Your task to perform on an android device: Go to sound settings Image 0: 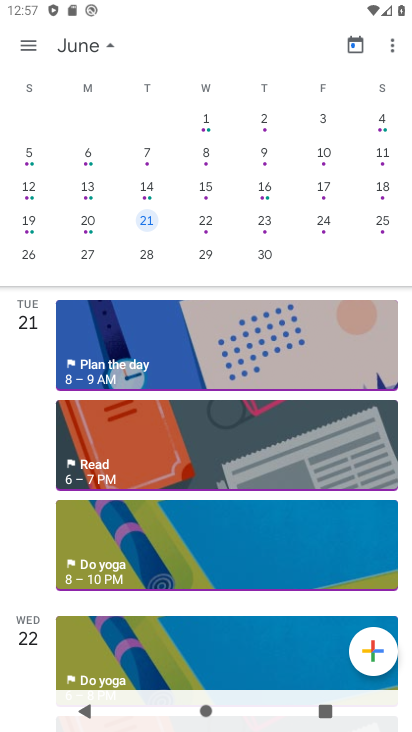
Step 0: press home button
Your task to perform on an android device: Go to sound settings Image 1: 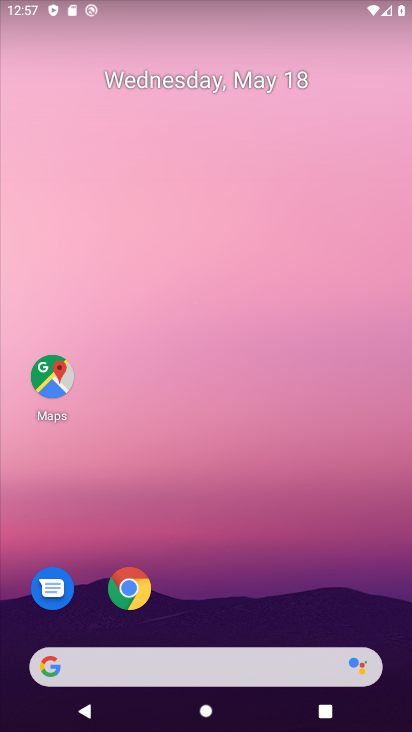
Step 1: drag from (362, 581) to (376, 78)
Your task to perform on an android device: Go to sound settings Image 2: 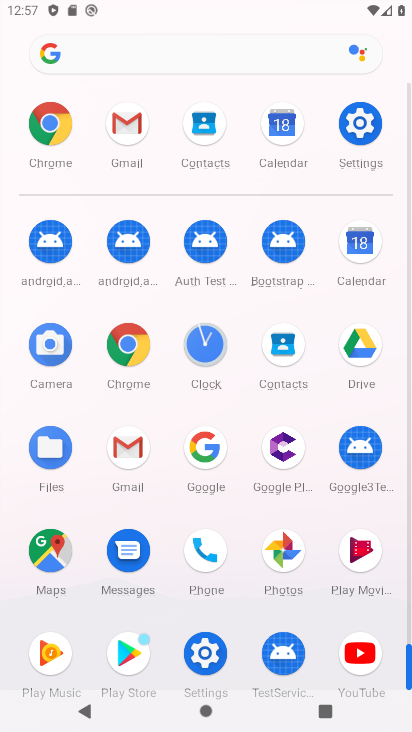
Step 2: click (362, 129)
Your task to perform on an android device: Go to sound settings Image 3: 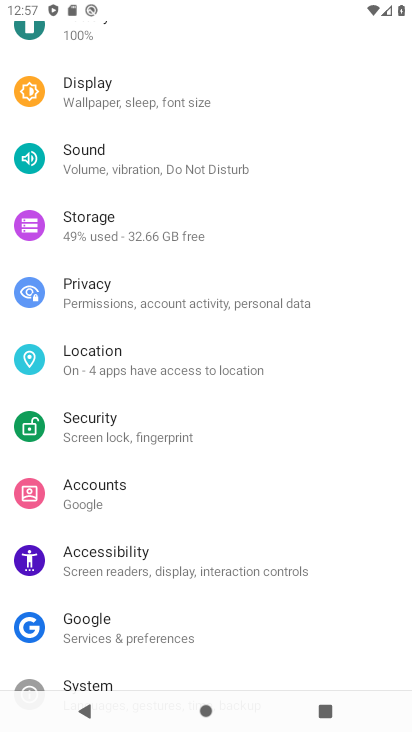
Step 3: drag from (349, 638) to (361, 538)
Your task to perform on an android device: Go to sound settings Image 4: 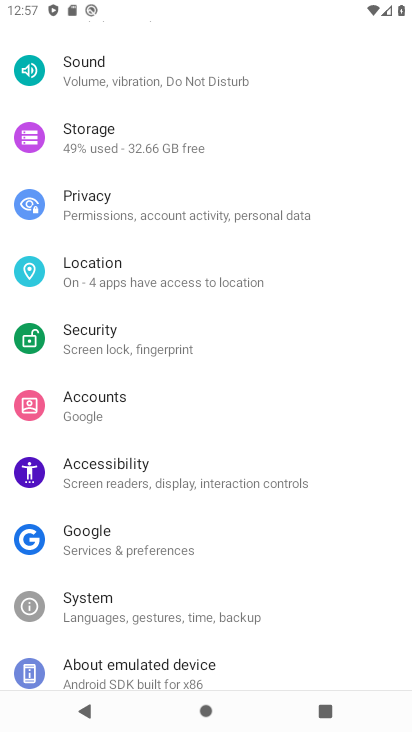
Step 4: drag from (362, 653) to (368, 526)
Your task to perform on an android device: Go to sound settings Image 5: 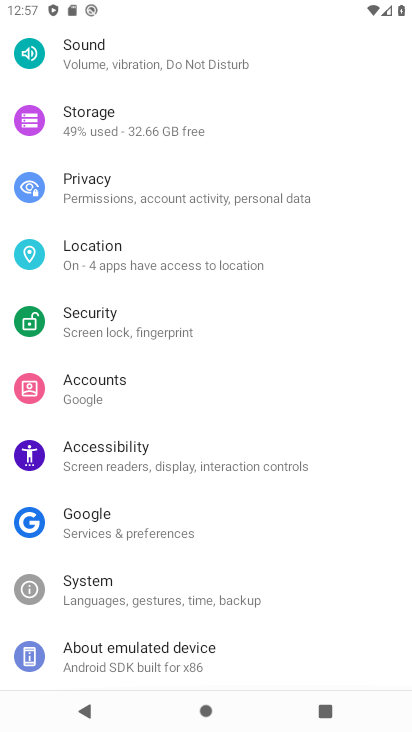
Step 5: drag from (348, 390) to (328, 501)
Your task to perform on an android device: Go to sound settings Image 6: 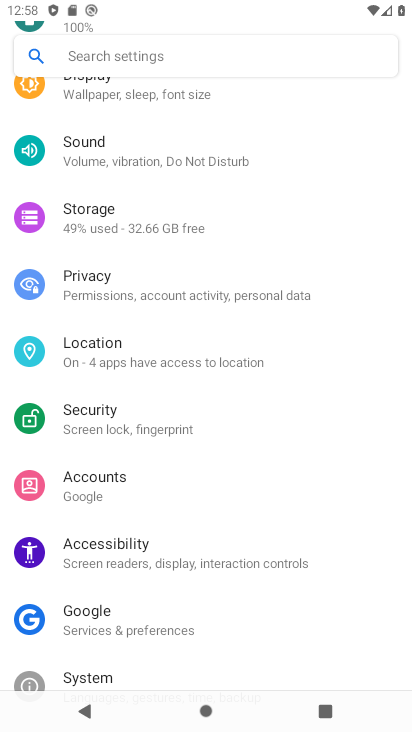
Step 6: drag from (334, 365) to (320, 491)
Your task to perform on an android device: Go to sound settings Image 7: 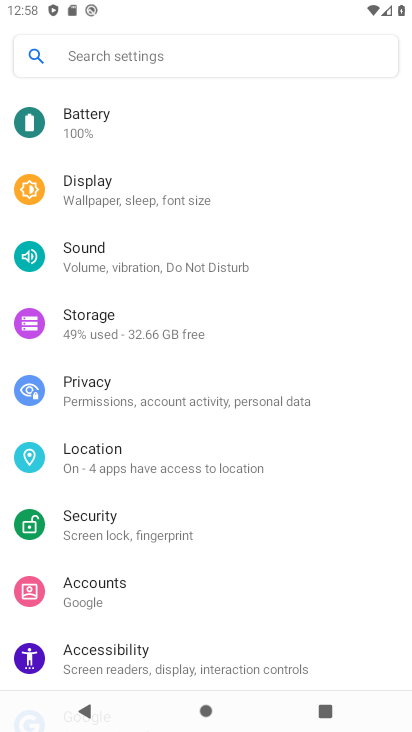
Step 7: drag from (325, 349) to (309, 458)
Your task to perform on an android device: Go to sound settings Image 8: 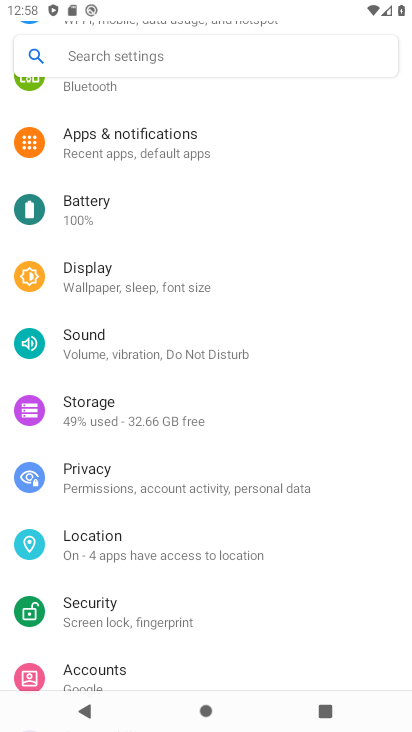
Step 8: drag from (325, 305) to (315, 412)
Your task to perform on an android device: Go to sound settings Image 9: 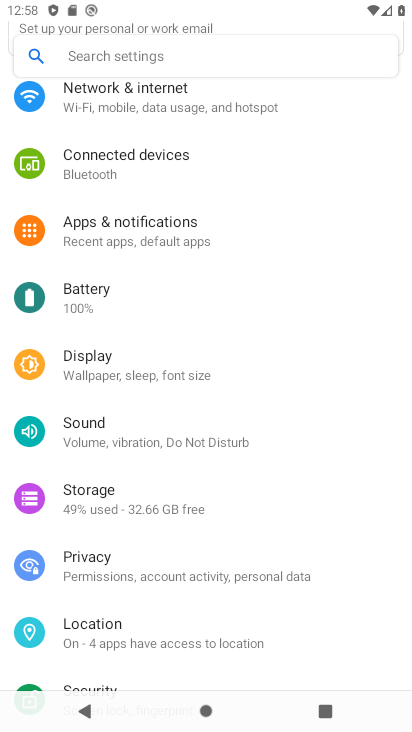
Step 9: drag from (314, 270) to (307, 358)
Your task to perform on an android device: Go to sound settings Image 10: 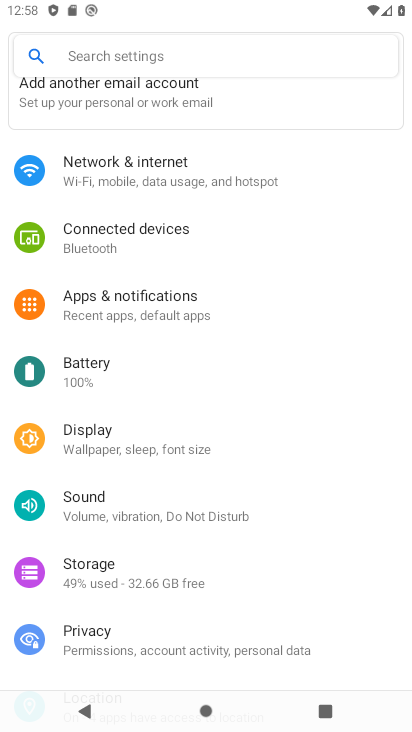
Step 10: drag from (317, 214) to (324, 356)
Your task to perform on an android device: Go to sound settings Image 11: 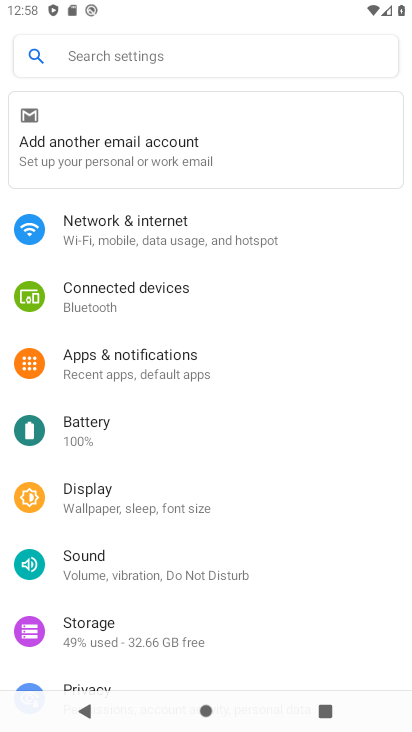
Step 11: drag from (308, 425) to (308, 330)
Your task to perform on an android device: Go to sound settings Image 12: 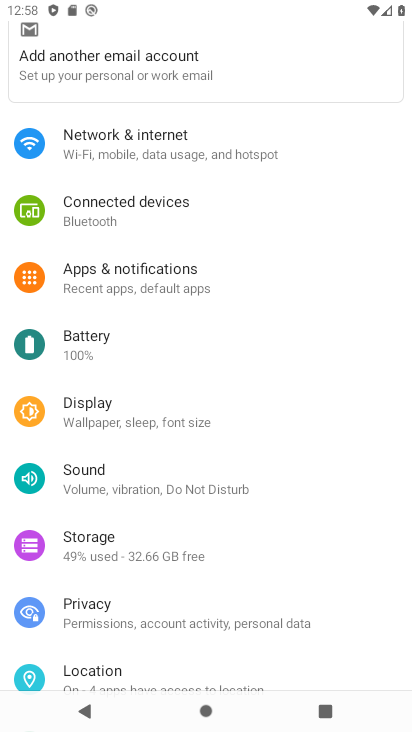
Step 12: drag from (296, 481) to (304, 372)
Your task to perform on an android device: Go to sound settings Image 13: 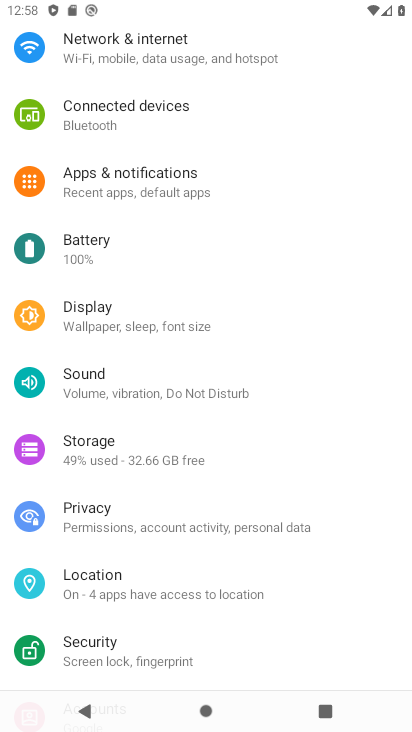
Step 13: click (172, 387)
Your task to perform on an android device: Go to sound settings Image 14: 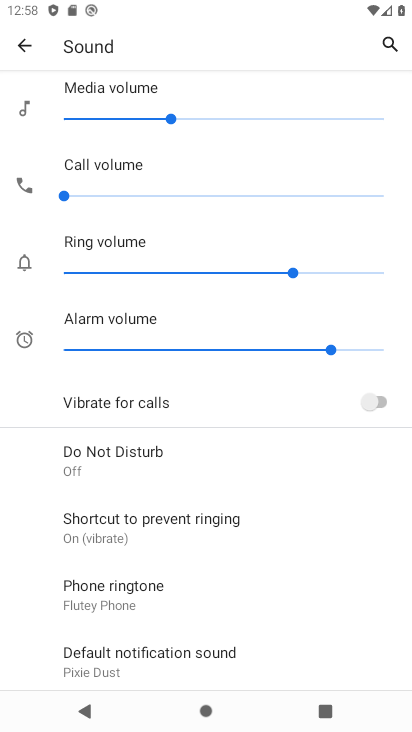
Step 14: task complete